Your task to perform on an android device: turn off wifi Image 0: 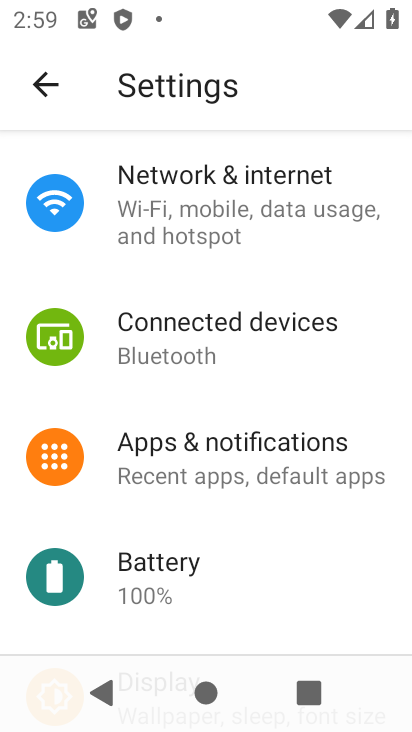
Step 0: click (219, 180)
Your task to perform on an android device: turn off wifi Image 1: 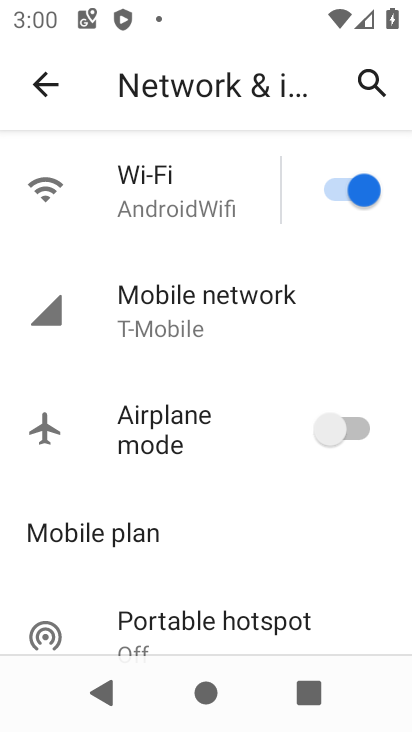
Step 1: click (359, 195)
Your task to perform on an android device: turn off wifi Image 2: 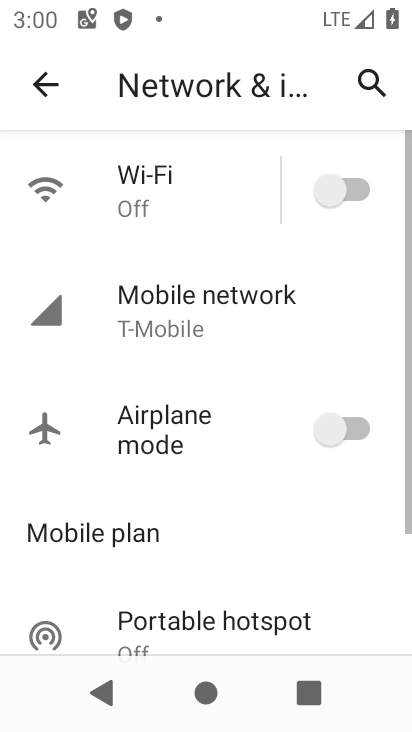
Step 2: task complete